Your task to perform on an android device: Open calendar and show me the second week of next month Image 0: 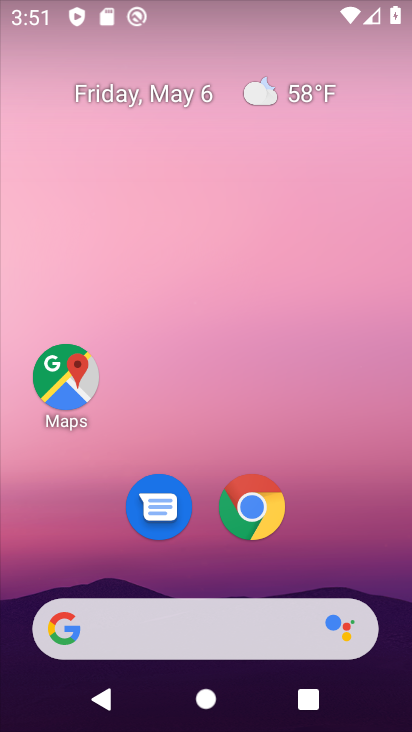
Step 0: drag from (395, 583) to (335, 197)
Your task to perform on an android device: Open calendar and show me the second week of next month Image 1: 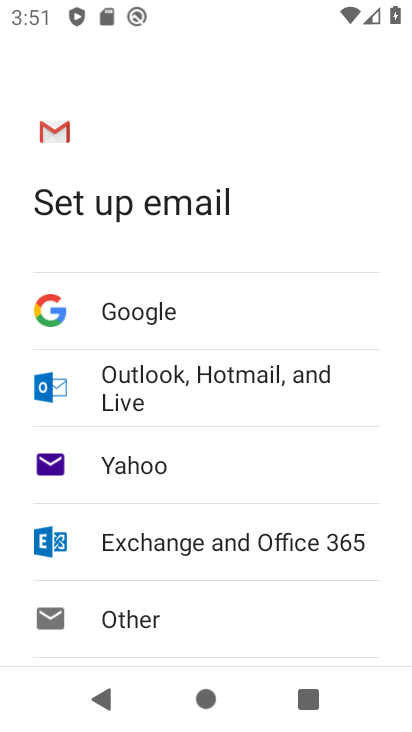
Step 1: press home button
Your task to perform on an android device: Open calendar and show me the second week of next month Image 2: 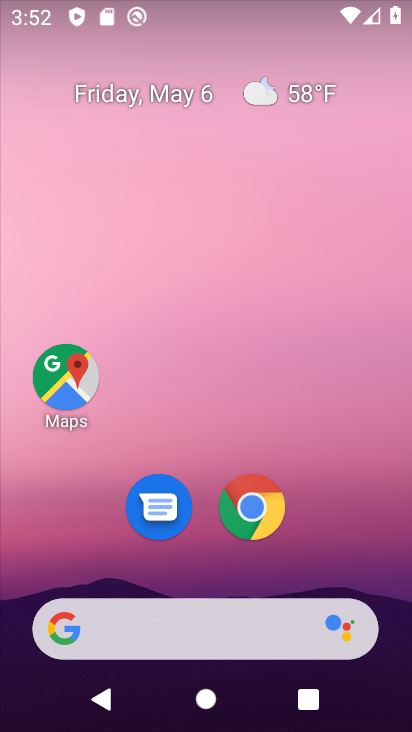
Step 2: drag from (359, 564) to (273, 3)
Your task to perform on an android device: Open calendar and show me the second week of next month Image 3: 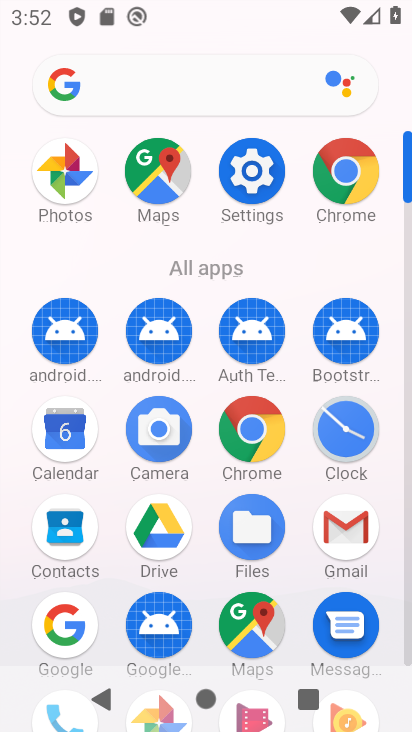
Step 3: click (65, 444)
Your task to perform on an android device: Open calendar and show me the second week of next month Image 4: 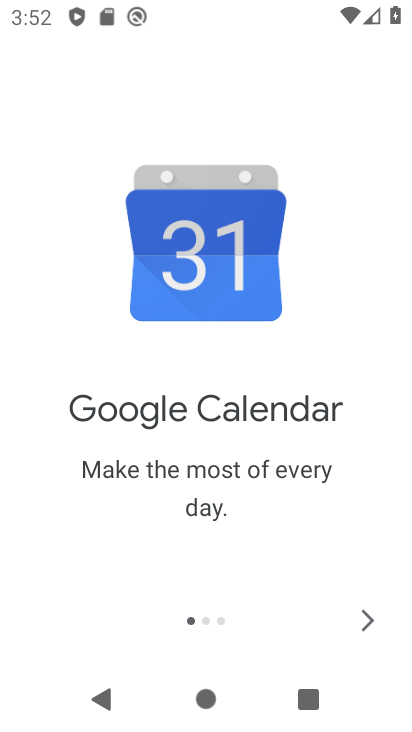
Step 4: click (370, 617)
Your task to perform on an android device: Open calendar and show me the second week of next month Image 5: 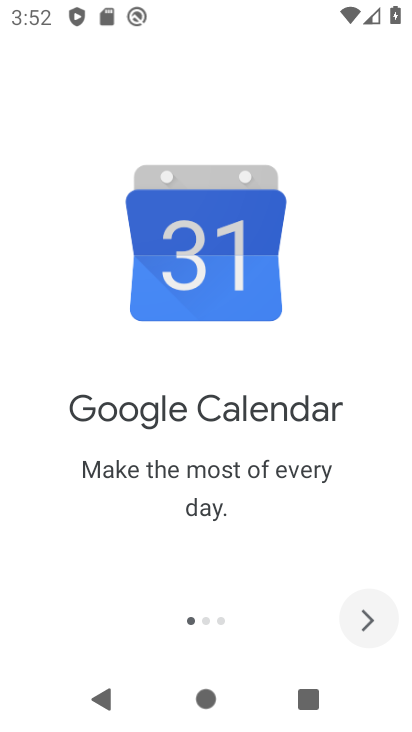
Step 5: click (370, 617)
Your task to perform on an android device: Open calendar and show me the second week of next month Image 6: 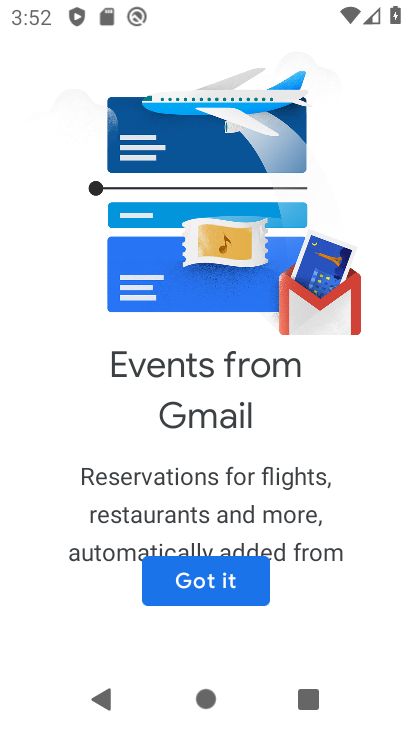
Step 6: click (194, 593)
Your task to perform on an android device: Open calendar and show me the second week of next month Image 7: 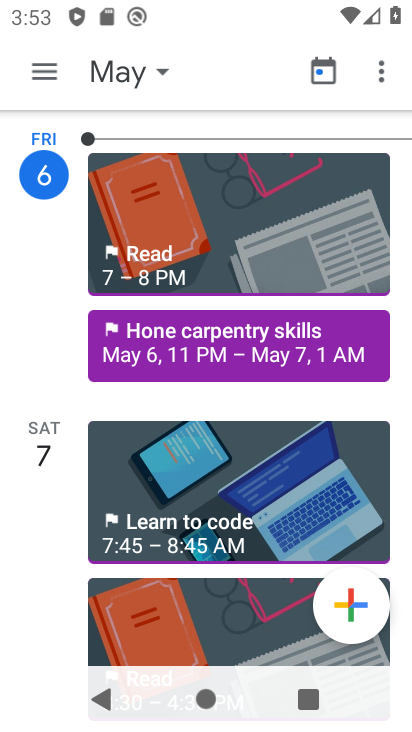
Step 7: click (45, 60)
Your task to perform on an android device: Open calendar and show me the second week of next month Image 8: 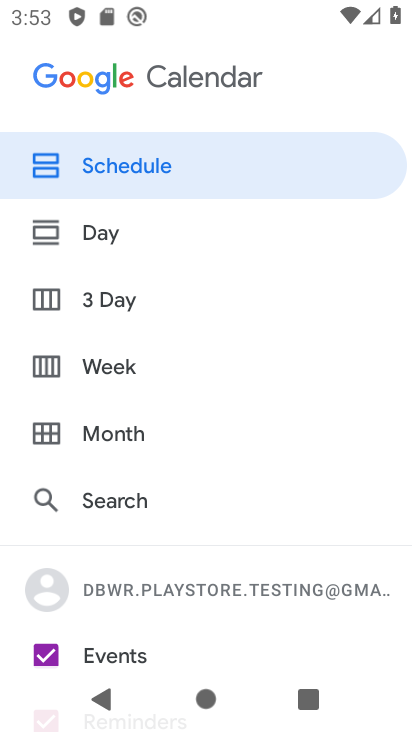
Step 8: click (114, 364)
Your task to perform on an android device: Open calendar and show me the second week of next month Image 9: 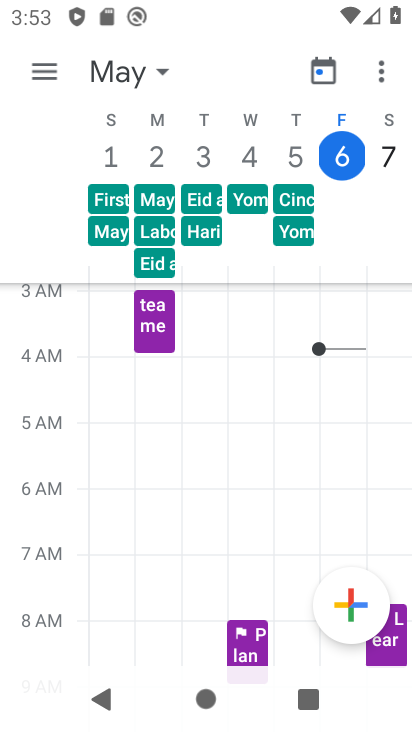
Step 9: click (147, 83)
Your task to perform on an android device: Open calendar and show me the second week of next month Image 10: 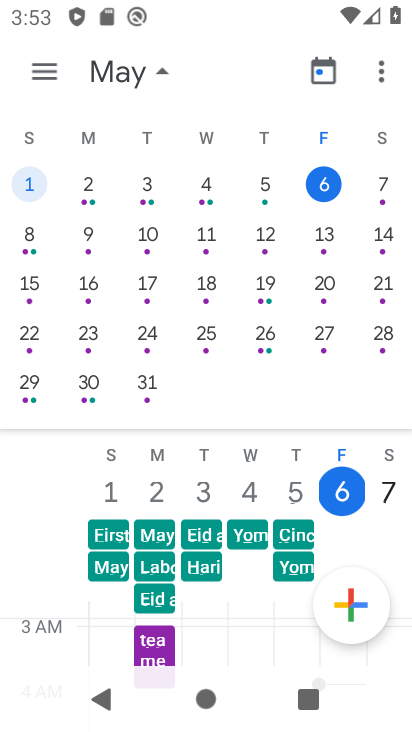
Step 10: drag from (379, 261) to (34, 327)
Your task to perform on an android device: Open calendar and show me the second week of next month Image 11: 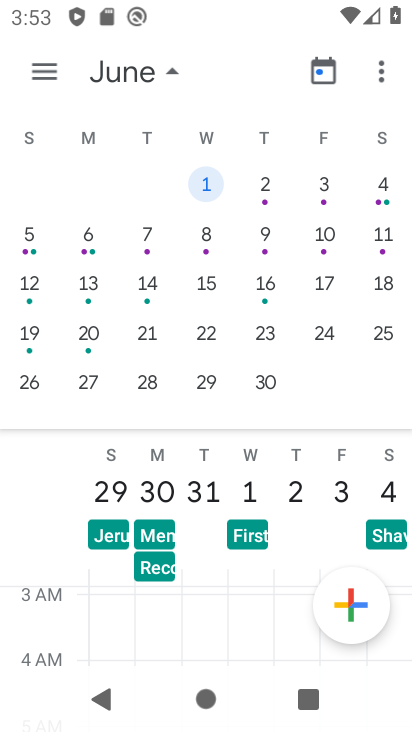
Step 11: click (265, 242)
Your task to perform on an android device: Open calendar and show me the second week of next month Image 12: 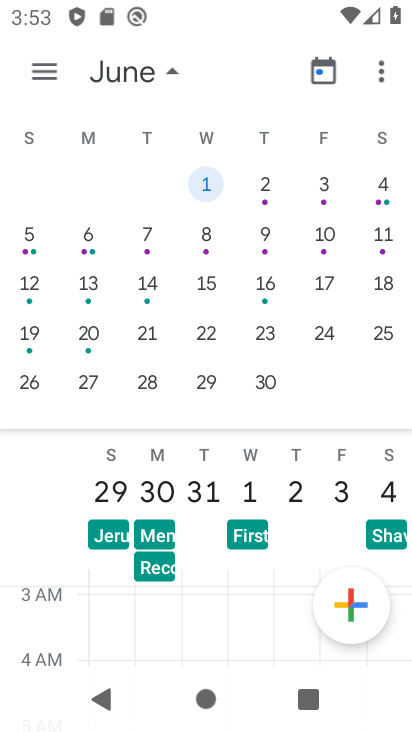
Step 12: click (257, 233)
Your task to perform on an android device: Open calendar and show me the second week of next month Image 13: 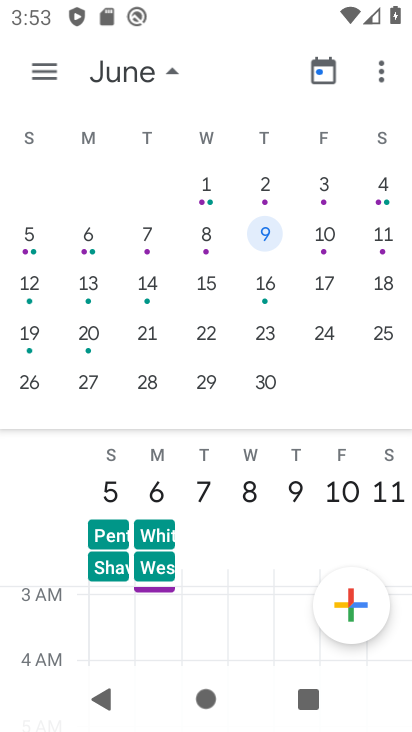
Step 13: task complete